Your task to perform on an android device: install app "Google Photos" Image 0: 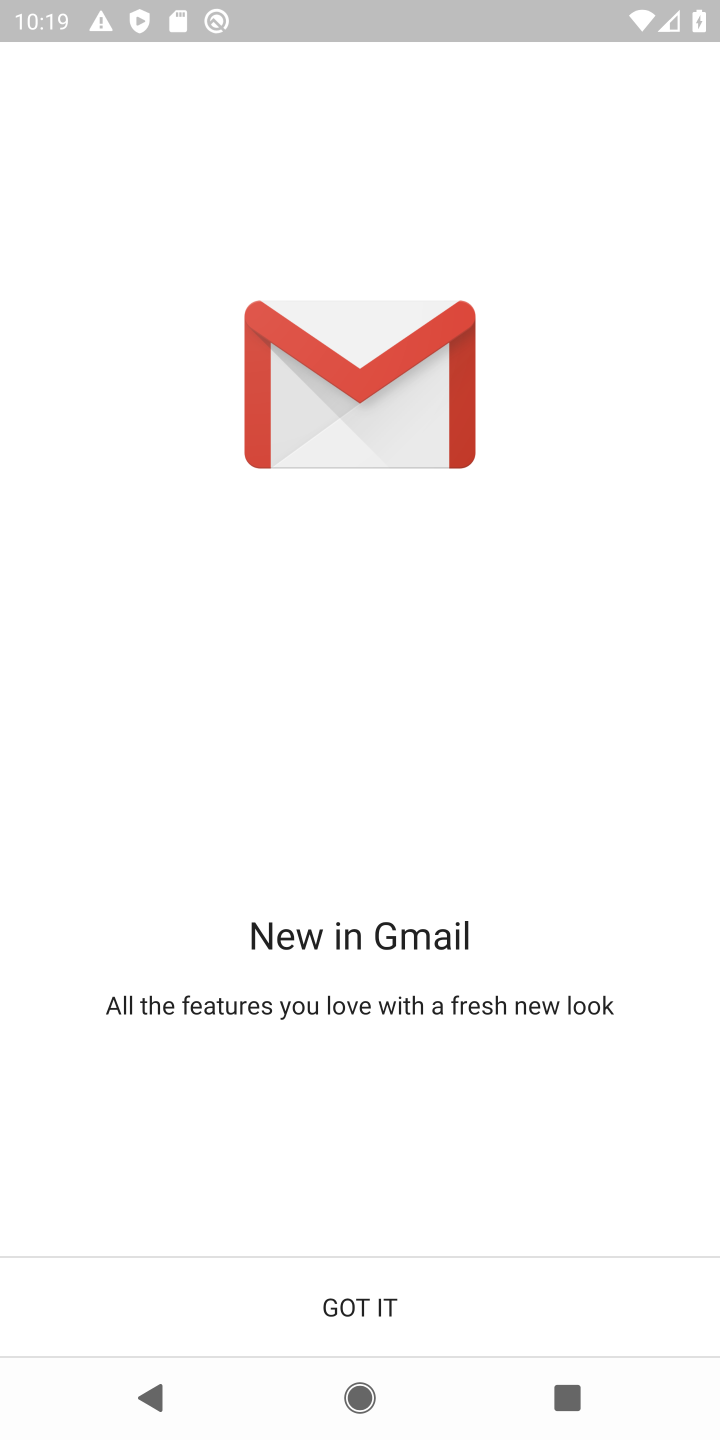
Step 0: press home button
Your task to perform on an android device: install app "Google Photos" Image 1: 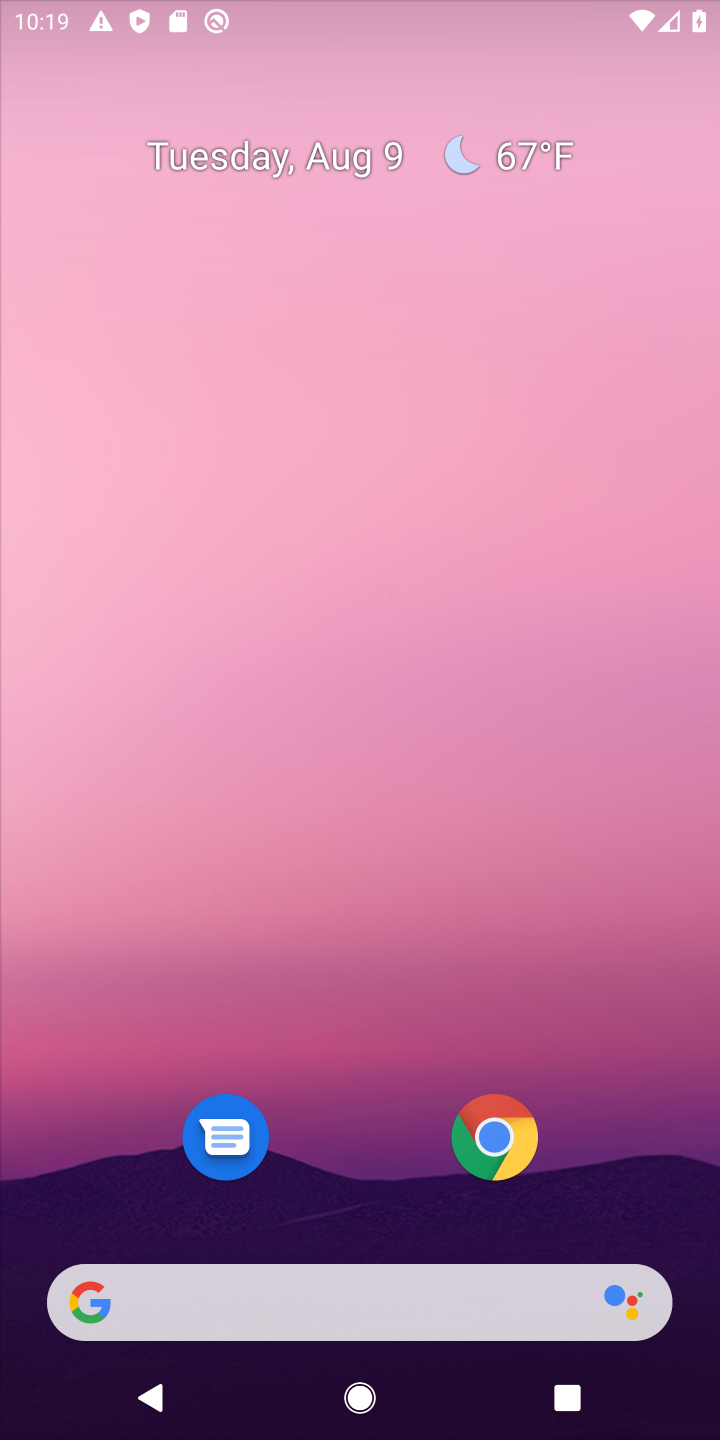
Step 1: drag from (645, 1058) to (368, 0)
Your task to perform on an android device: install app "Google Photos" Image 2: 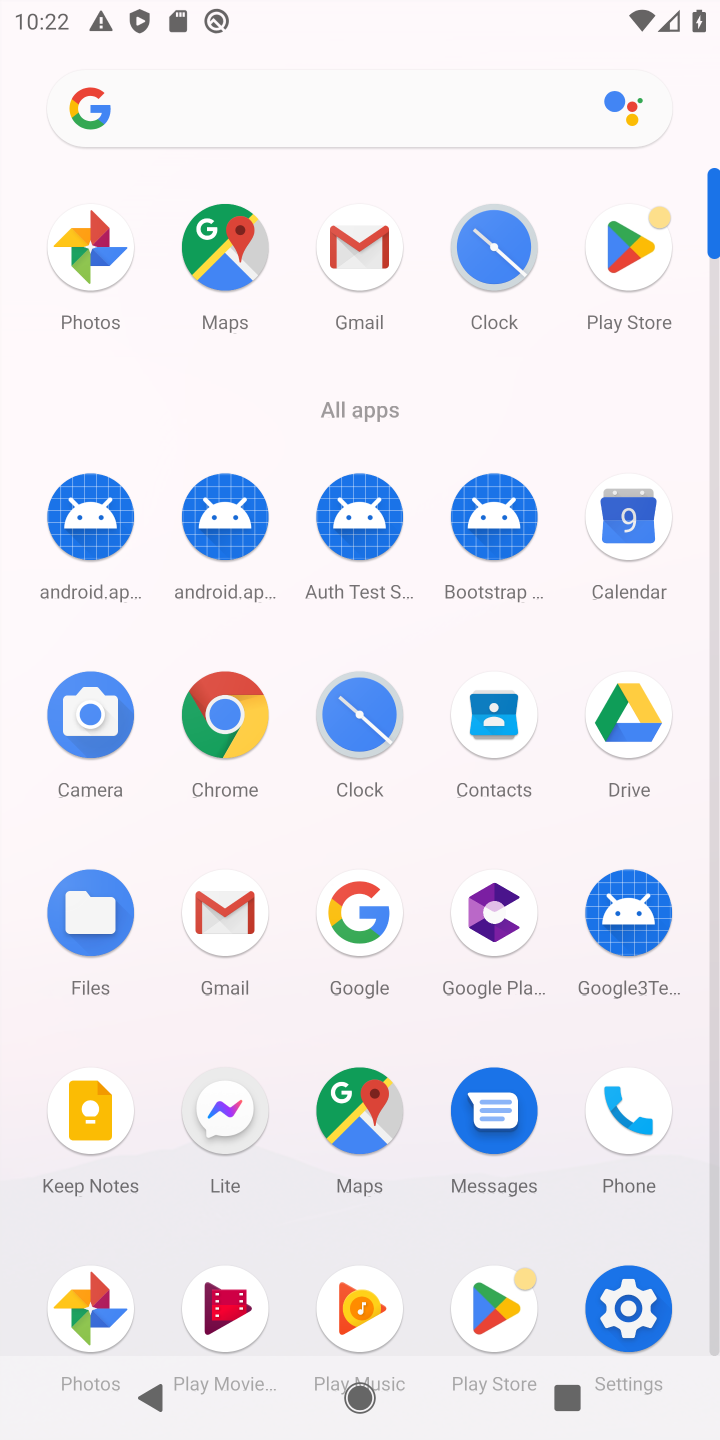
Step 2: click (614, 280)
Your task to perform on an android device: install app "Google Photos" Image 3: 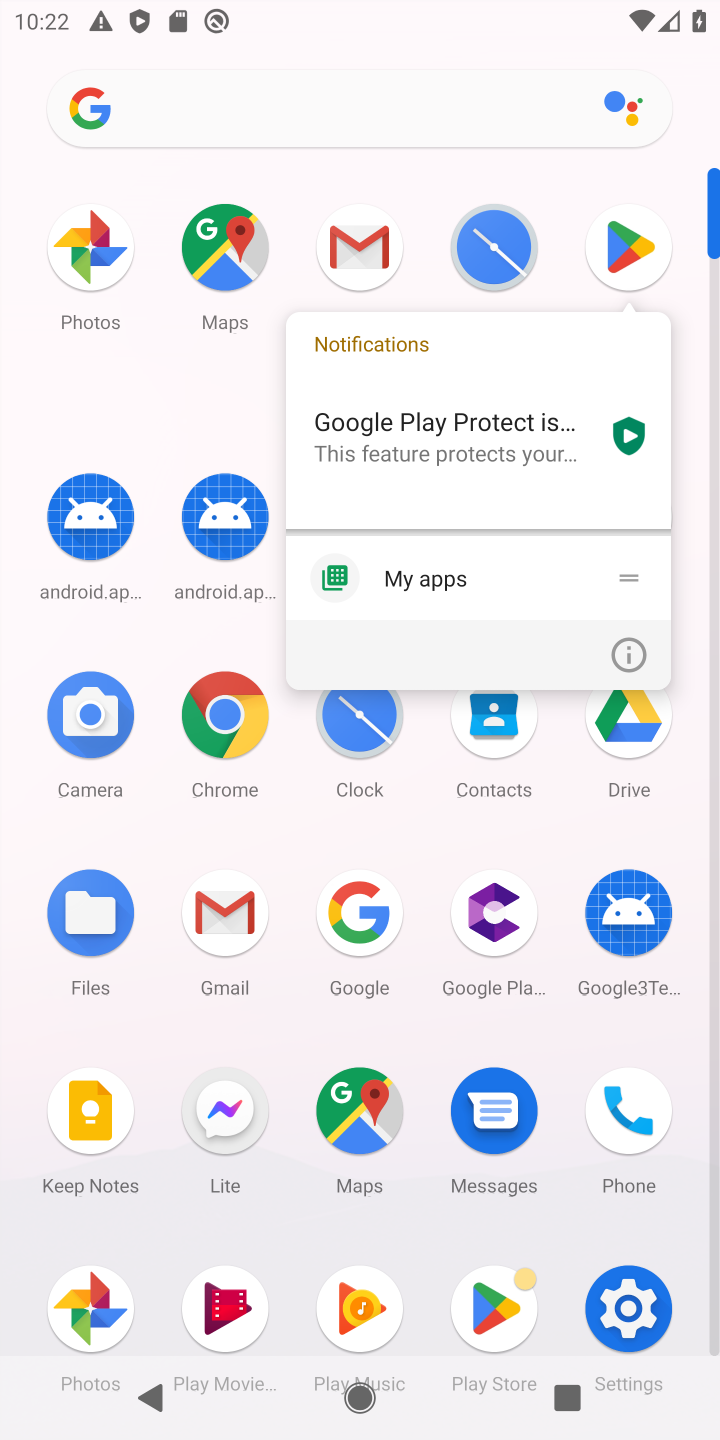
Step 3: click (614, 280)
Your task to perform on an android device: install app "Google Photos" Image 4: 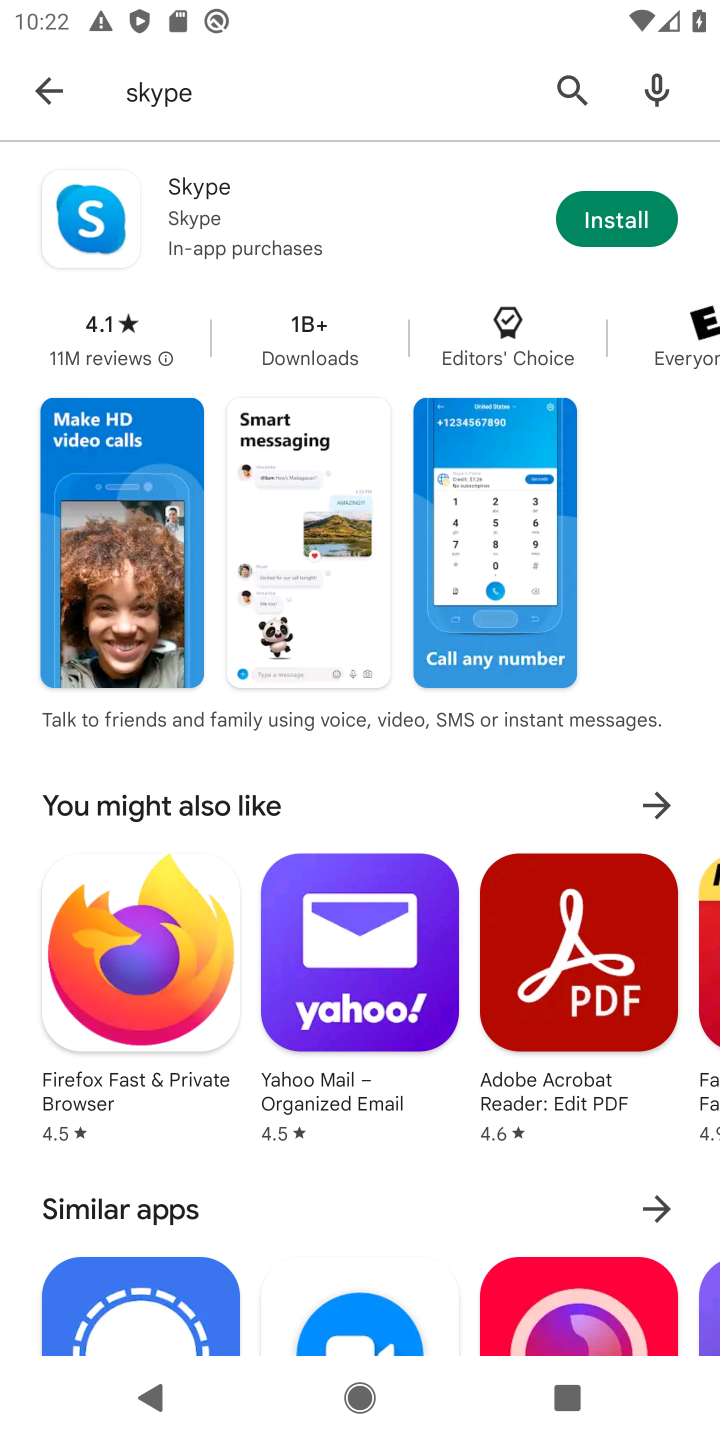
Step 4: press back button
Your task to perform on an android device: install app "Google Photos" Image 5: 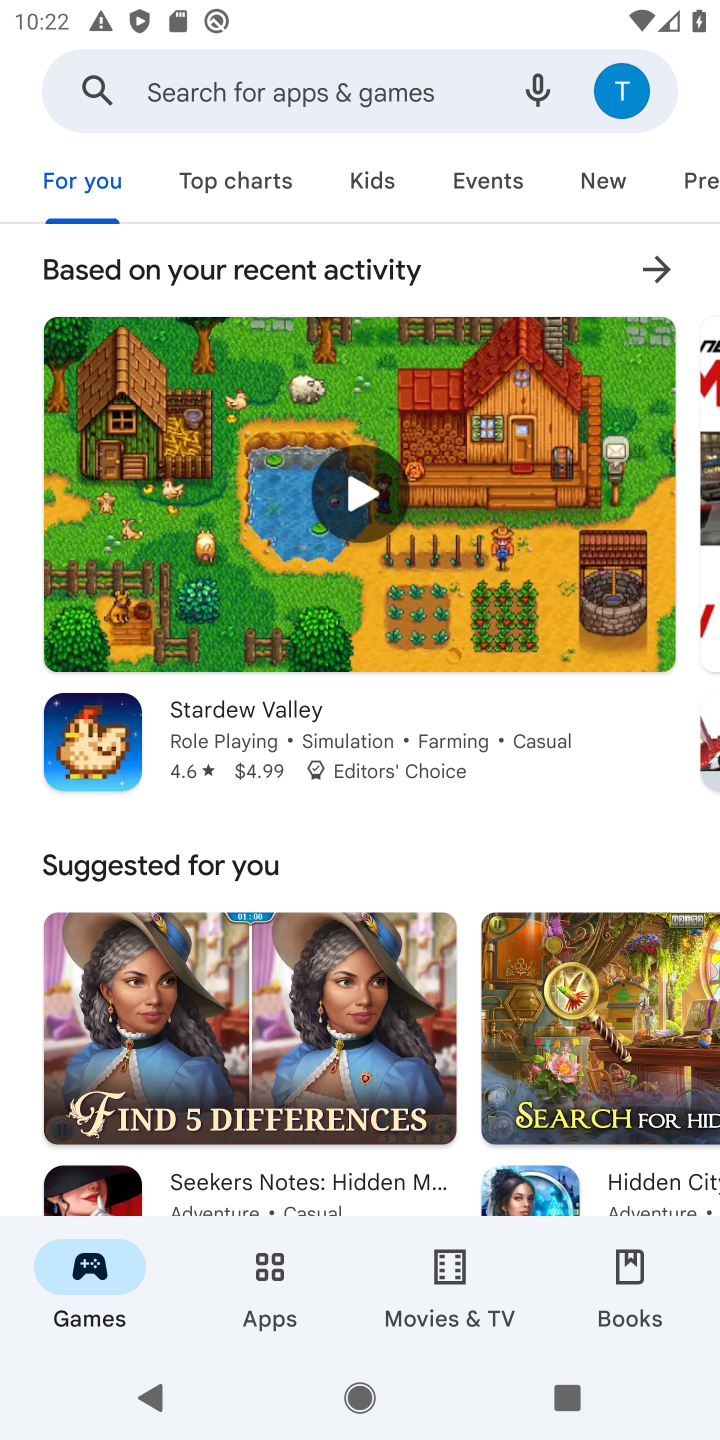
Step 5: click (168, 97)
Your task to perform on an android device: install app "Google Photos" Image 6: 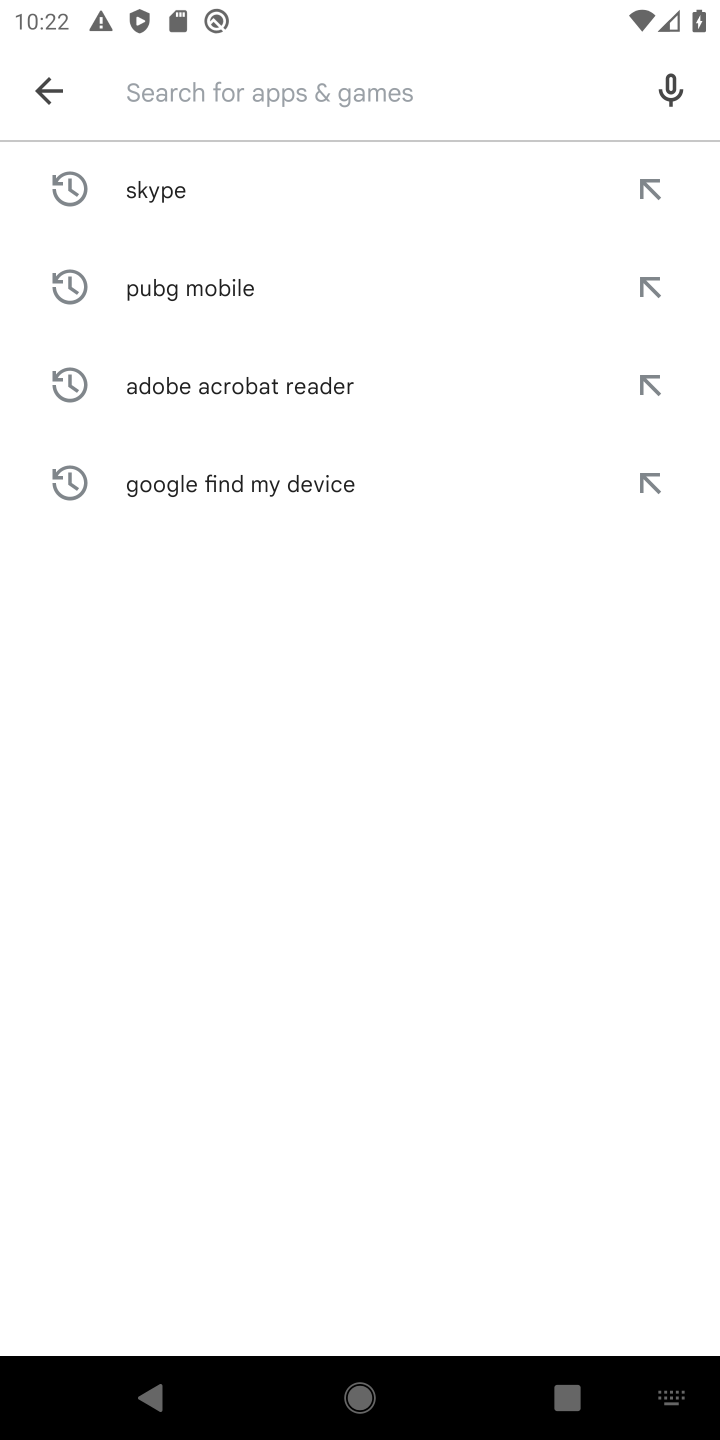
Step 6: type "Google Photos"
Your task to perform on an android device: install app "Google Photos" Image 7: 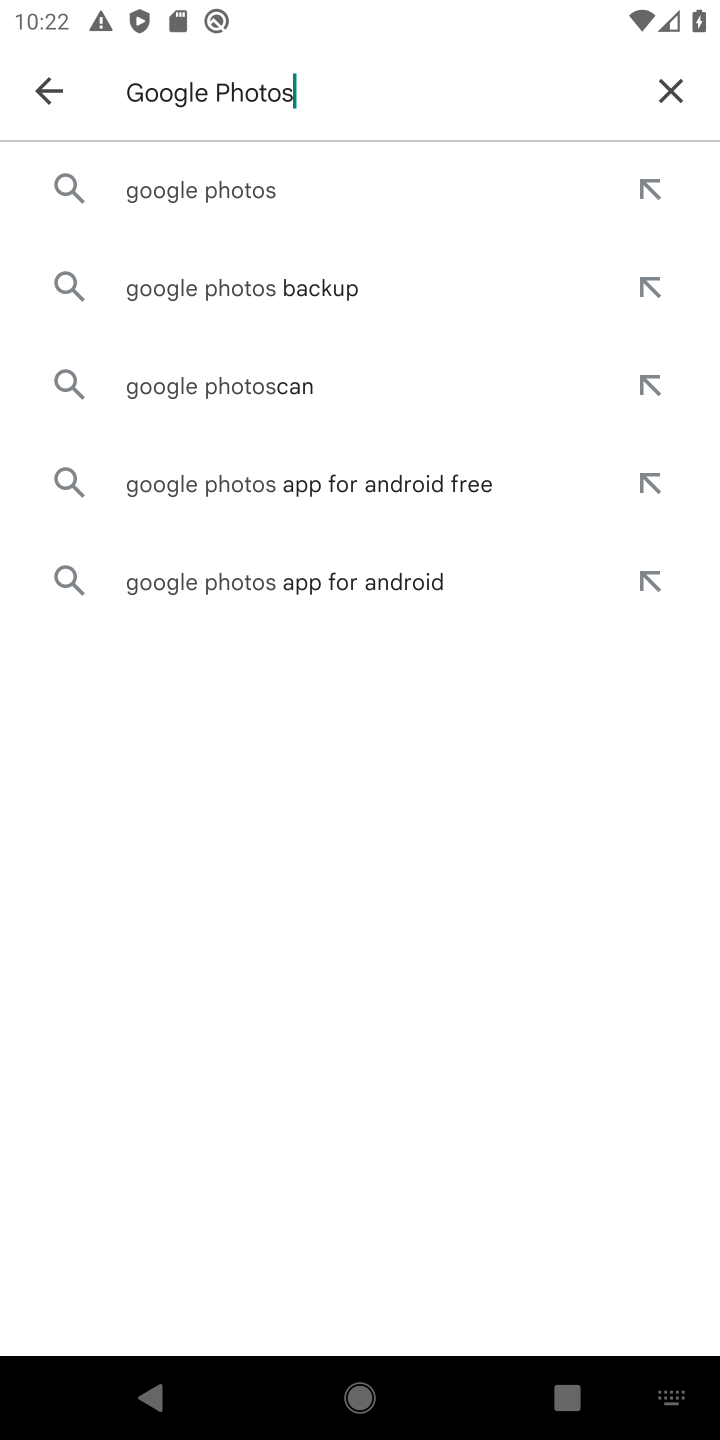
Step 7: click (214, 211)
Your task to perform on an android device: install app "Google Photos" Image 8: 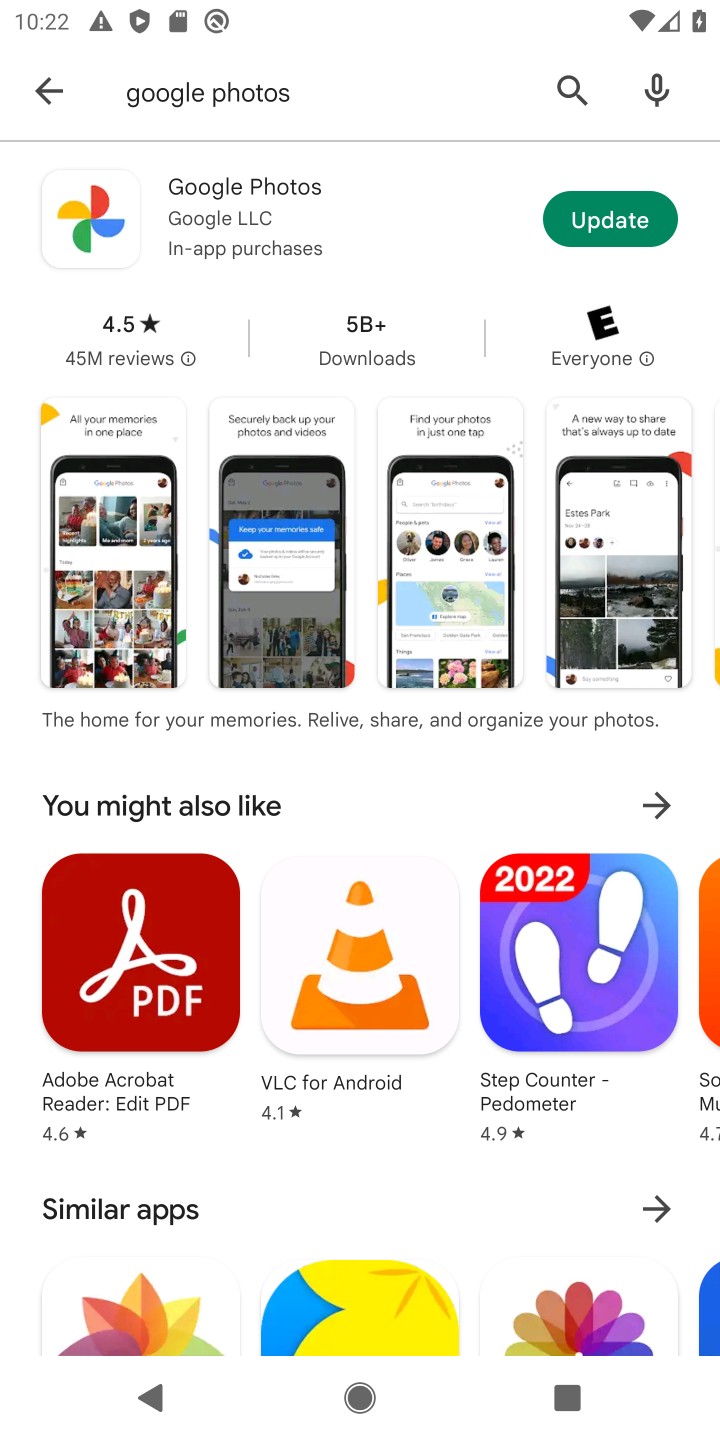
Step 8: click (615, 215)
Your task to perform on an android device: install app "Google Photos" Image 9: 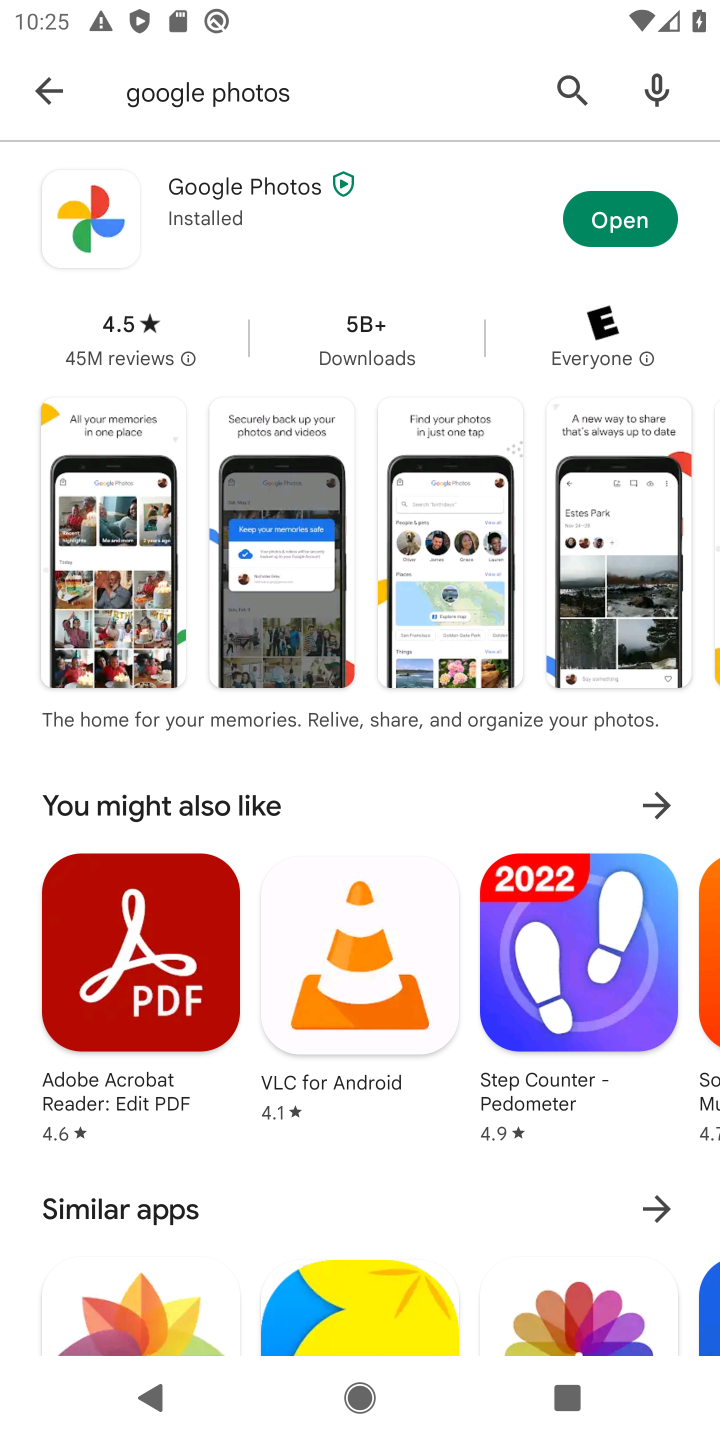
Step 9: task complete